Your task to perform on an android device: Show the shopping cart on newegg.com. Add logitech g pro to the cart on newegg.com Image 0: 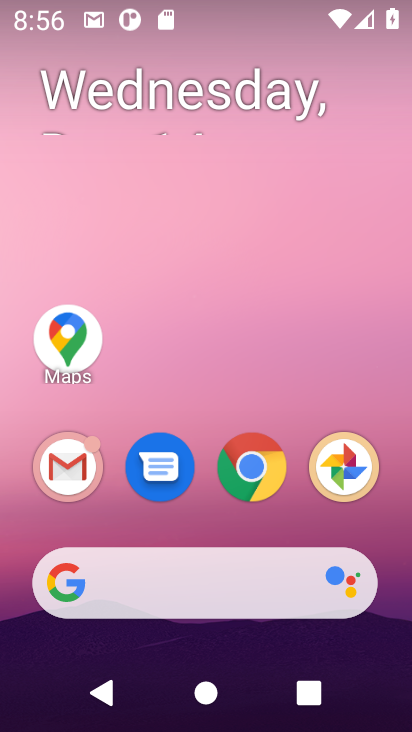
Step 0: task complete